Your task to perform on an android device: Go to ESPN.com Image 0: 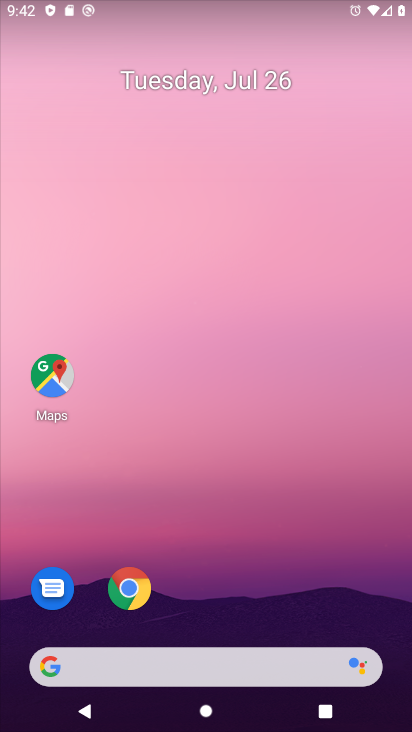
Step 0: click (127, 585)
Your task to perform on an android device: Go to ESPN.com Image 1: 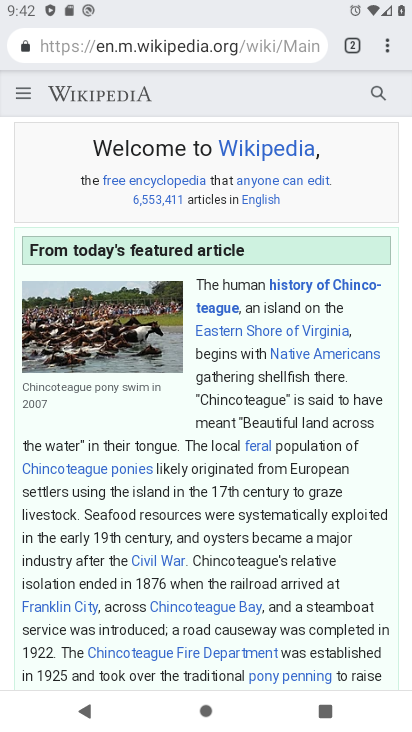
Step 1: click (349, 47)
Your task to perform on an android device: Go to ESPN.com Image 2: 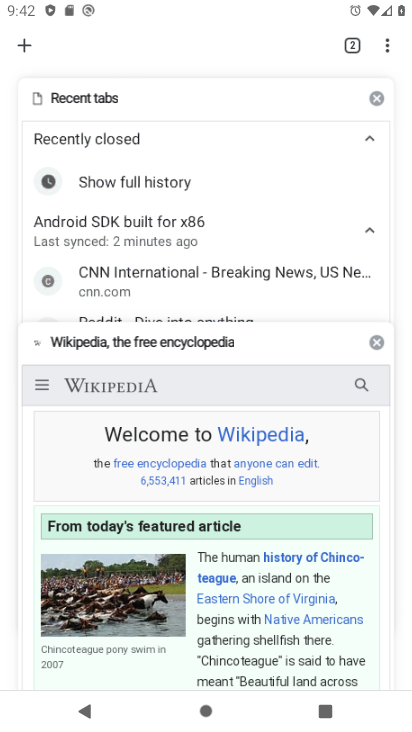
Step 2: click (19, 39)
Your task to perform on an android device: Go to ESPN.com Image 3: 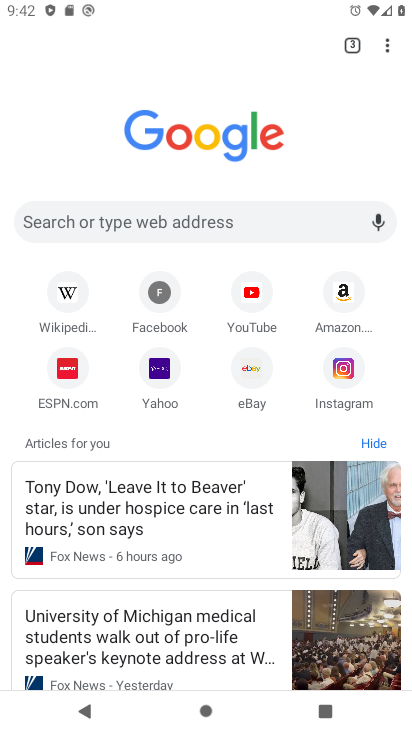
Step 3: click (69, 363)
Your task to perform on an android device: Go to ESPN.com Image 4: 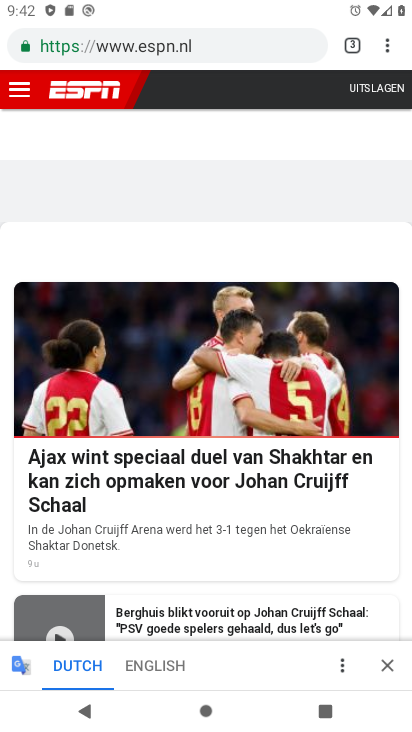
Step 4: task complete